Your task to perform on an android device: Go to Google Image 0: 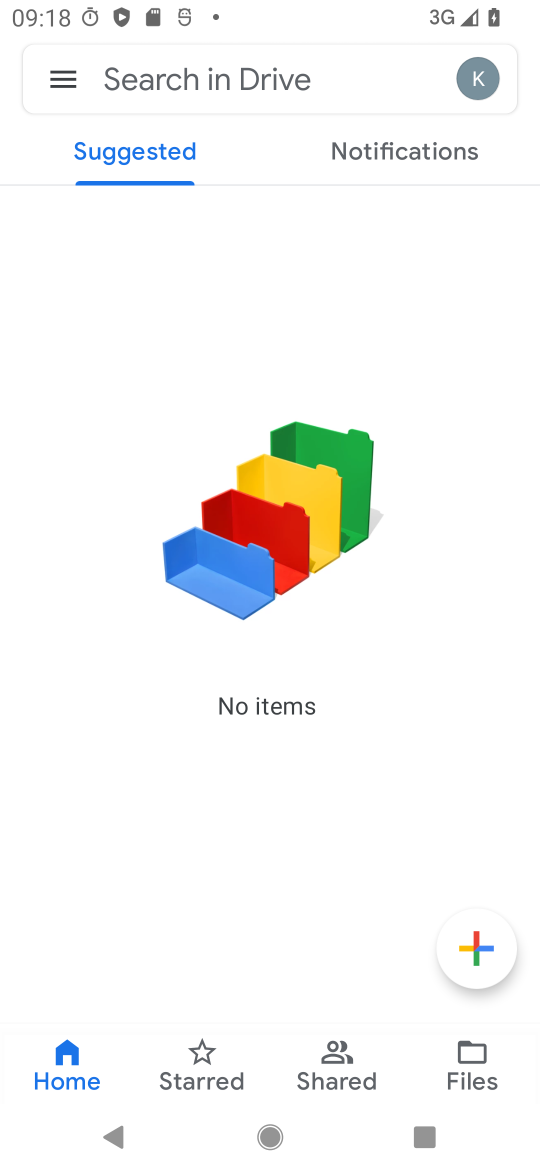
Step 0: press home button
Your task to perform on an android device: Go to Google Image 1: 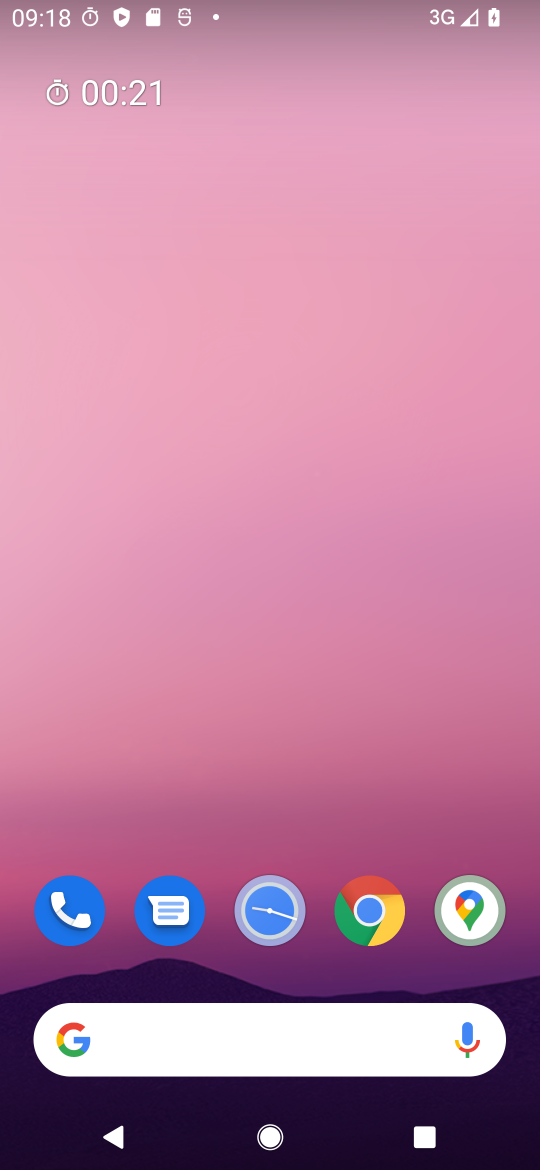
Step 1: drag from (243, 1016) to (328, 108)
Your task to perform on an android device: Go to Google Image 2: 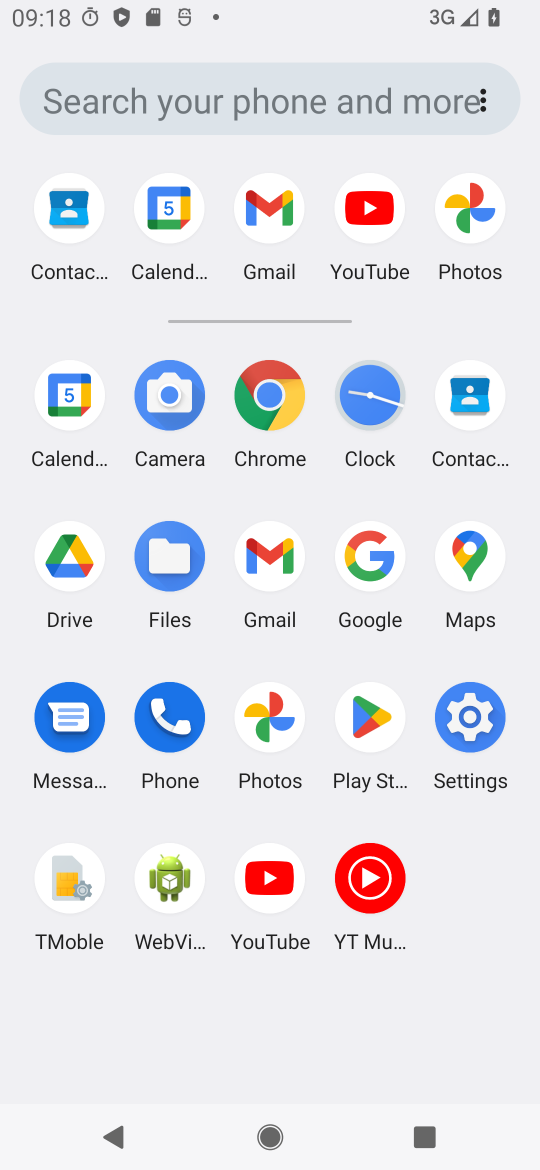
Step 2: click (266, 407)
Your task to perform on an android device: Go to Google Image 3: 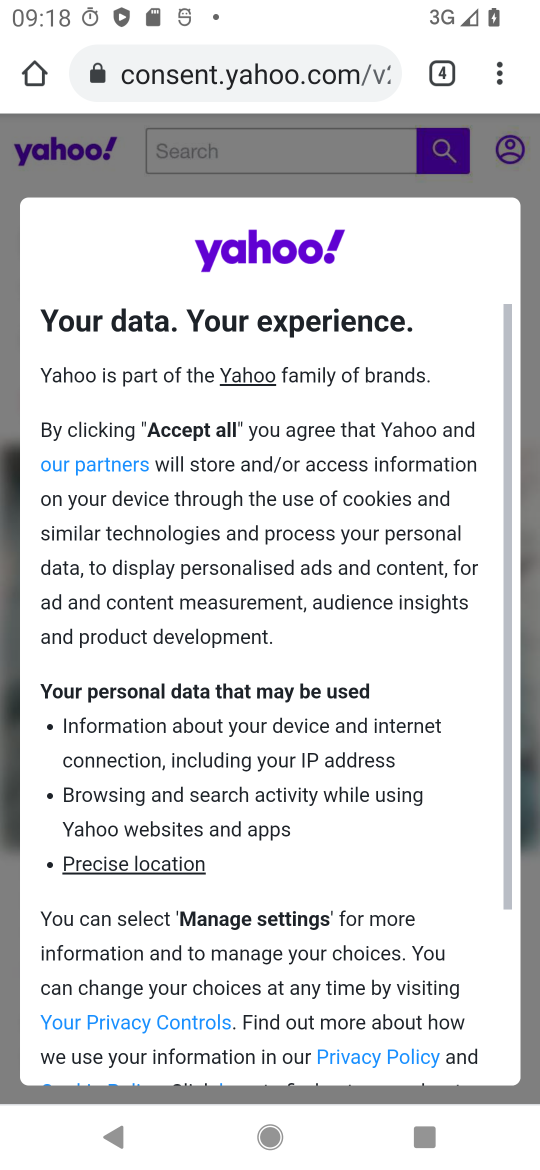
Step 3: drag from (502, 66) to (340, 237)
Your task to perform on an android device: Go to Google Image 4: 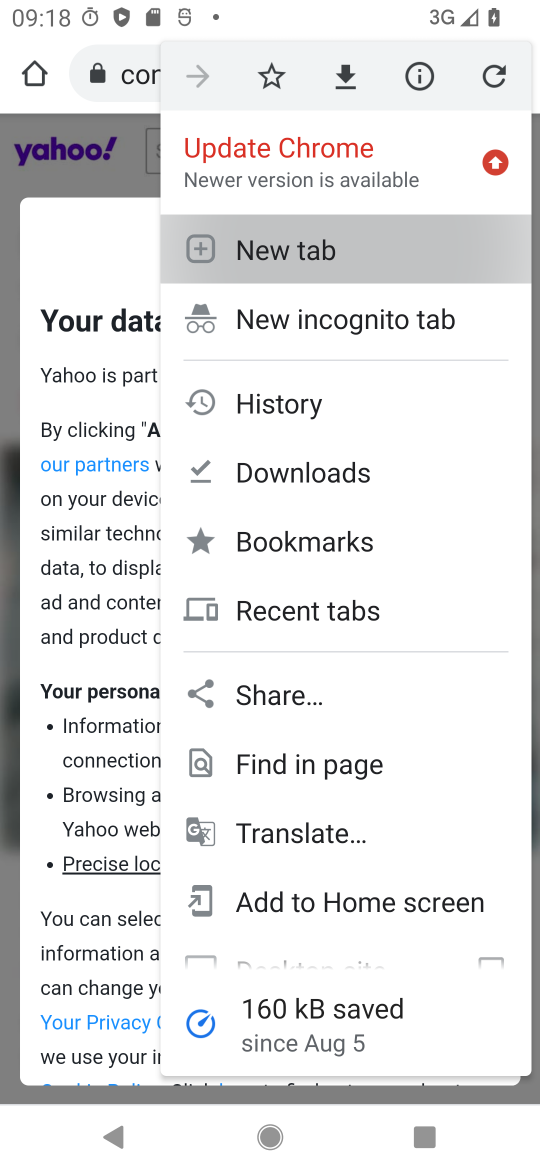
Step 4: click (340, 237)
Your task to perform on an android device: Go to Google Image 5: 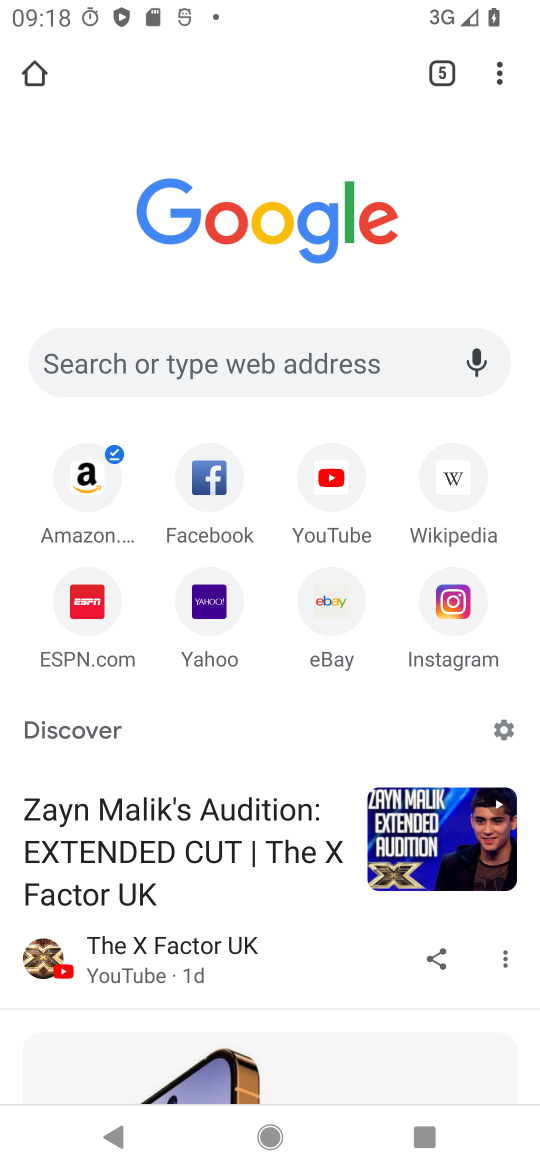
Step 5: task complete